Your task to perform on an android device: Show me popular games on the Play Store Image 0: 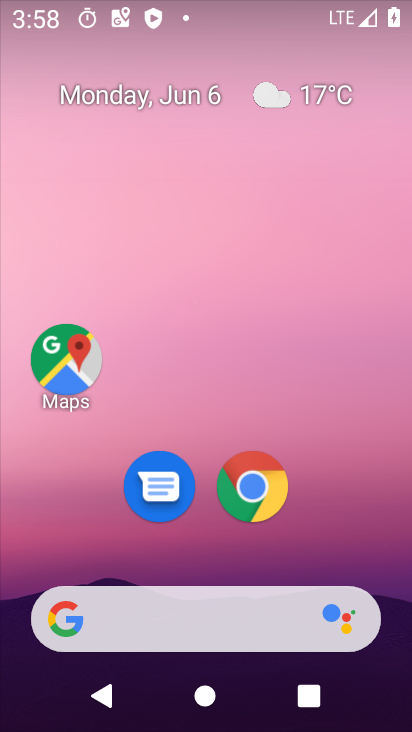
Step 0: drag from (353, 491) to (410, 97)
Your task to perform on an android device: Show me popular games on the Play Store Image 1: 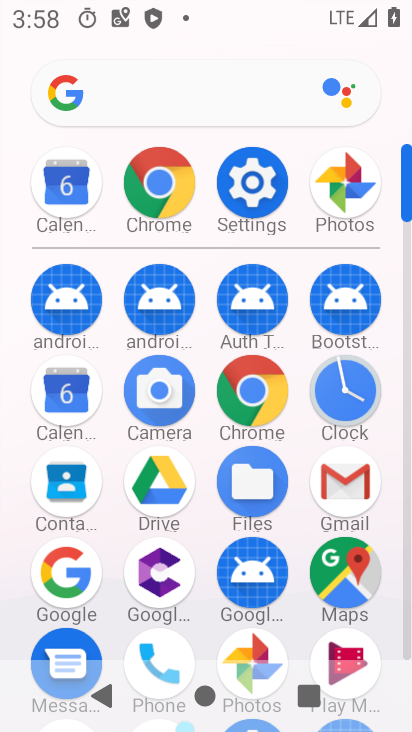
Step 1: drag from (310, 622) to (323, 155)
Your task to perform on an android device: Show me popular games on the Play Store Image 2: 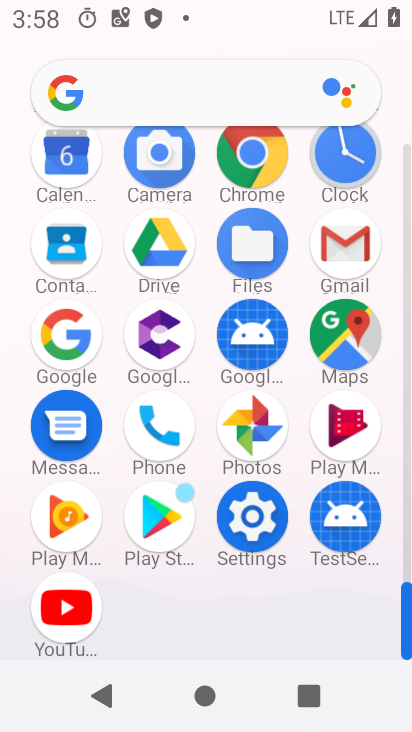
Step 2: click (148, 538)
Your task to perform on an android device: Show me popular games on the Play Store Image 3: 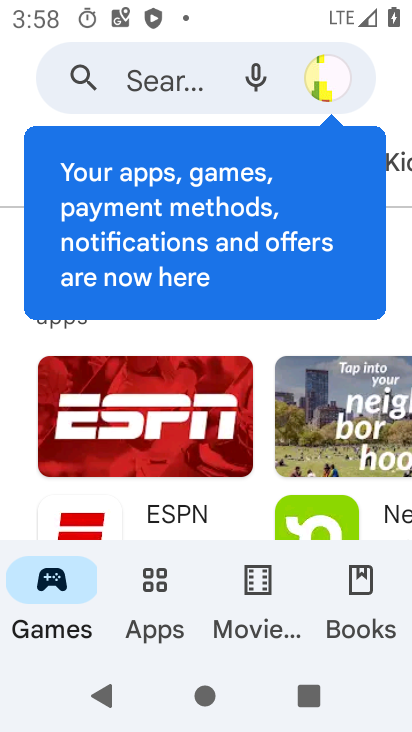
Step 3: drag from (237, 463) to (303, 57)
Your task to perform on an android device: Show me popular games on the Play Store Image 4: 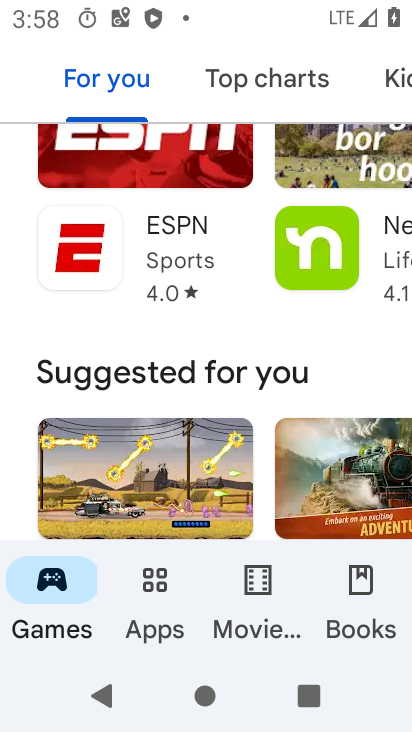
Step 4: drag from (228, 460) to (298, 85)
Your task to perform on an android device: Show me popular games on the Play Store Image 5: 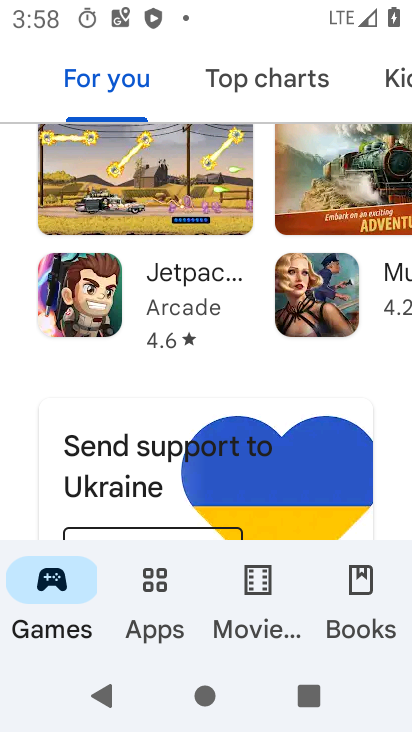
Step 5: drag from (159, 453) to (286, 123)
Your task to perform on an android device: Show me popular games on the Play Store Image 6: 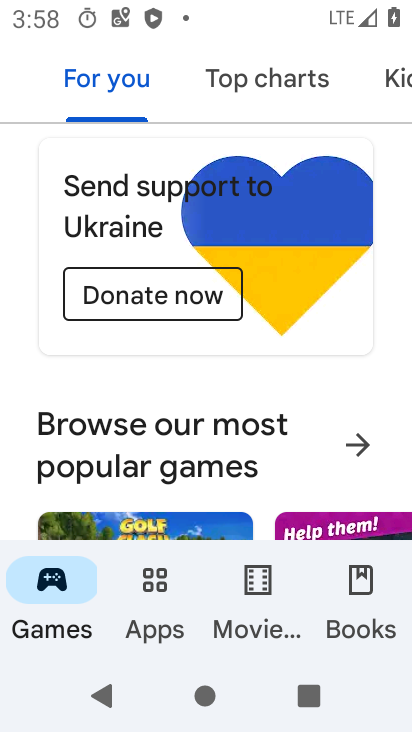
Step 6: drag from (181, 450) to (293, 110)
Your task to perform on an android device: Show me popular games on the Play Store Image 7: 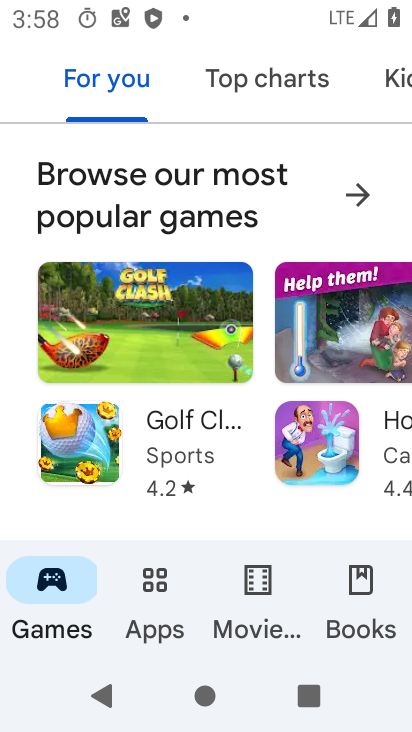
Step 7: drag from (193, 447) to (343, 131)
Your task to perform on an android device: Show me popular games on the Play Store Image 8: 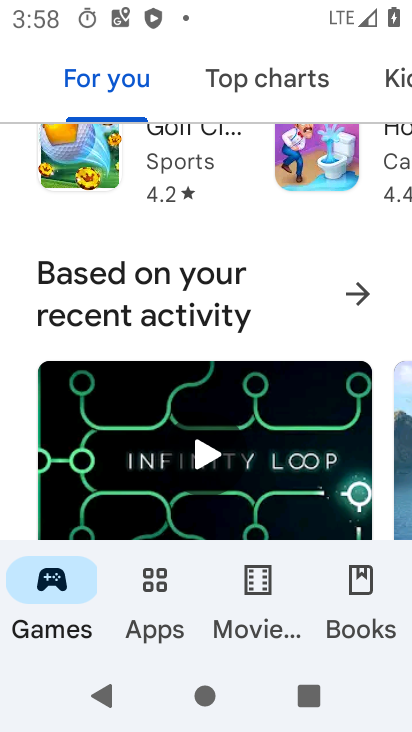
Step 8: drag from (254, 491) to (339, 94)
Your task to perform on an android device: Show me popular games on the Play Store Image 9: 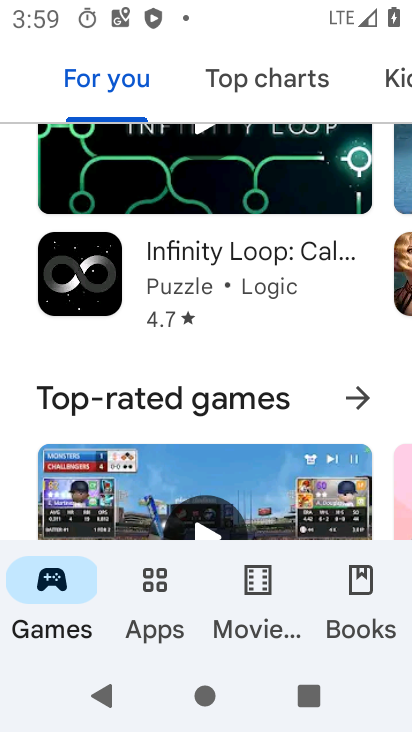
Step 9: drag from (218, 437) to (366, 111)
Your task to perform on an android device: Show me popular games on the Play Store Image 10: 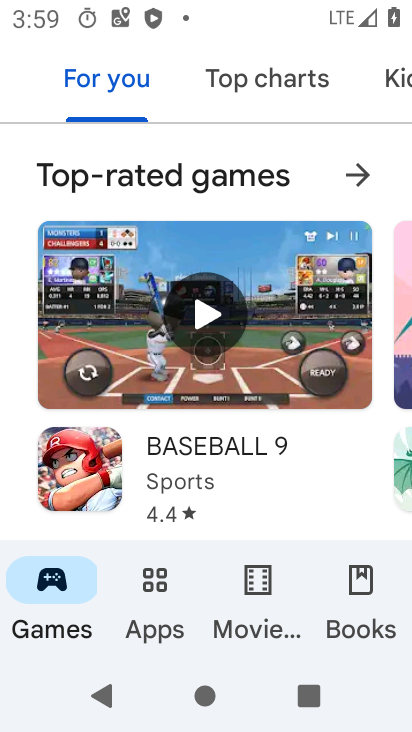
Step 10: drag from (271, 460) to (376, 105)
Your task to perform on an android device: Show me popular games on the Play Store Image 11: 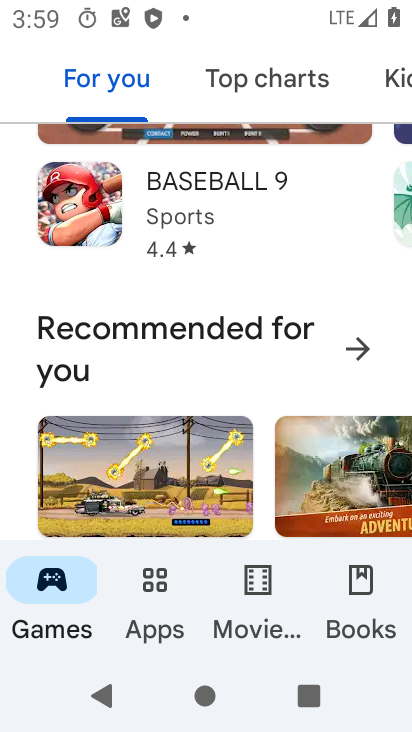
Step 11: drag from (233, 405) to (277, 106)
Your task to perform on an android device: Show me popular games on the Play Store Image 12: 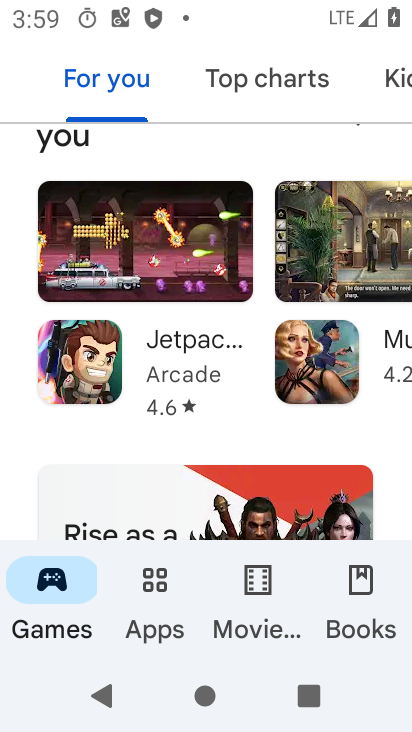
Step 12: drag from (190, 441) to (315, 139)
Your task to perform on an android device: Show me popular games on the Play Store Image 13: 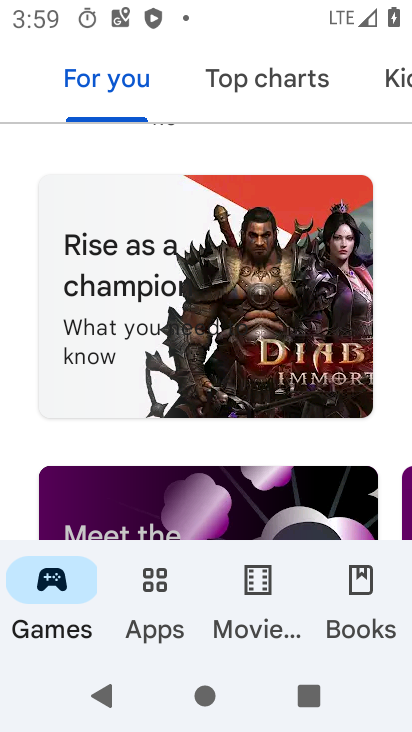
Step 13: drag from (224, 504) to (318, 180)
Your task to perform on an android device: Show me popular games on the Play Store Image 14: 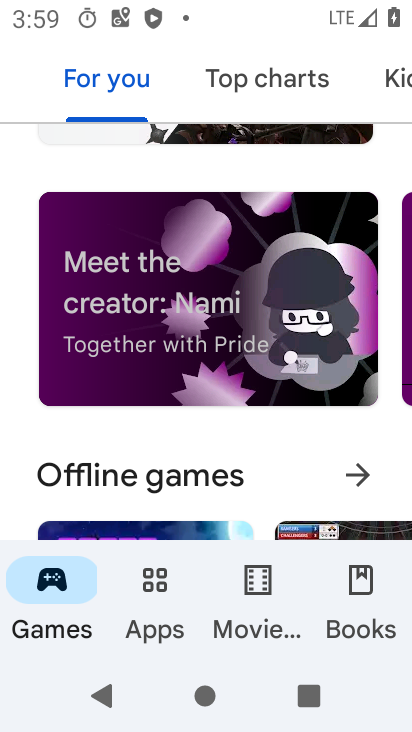
Step 14: drag from (231, 459) to (227, 119)
Your task to perform on an android device: Show me popular games on the Play Store Image 15: 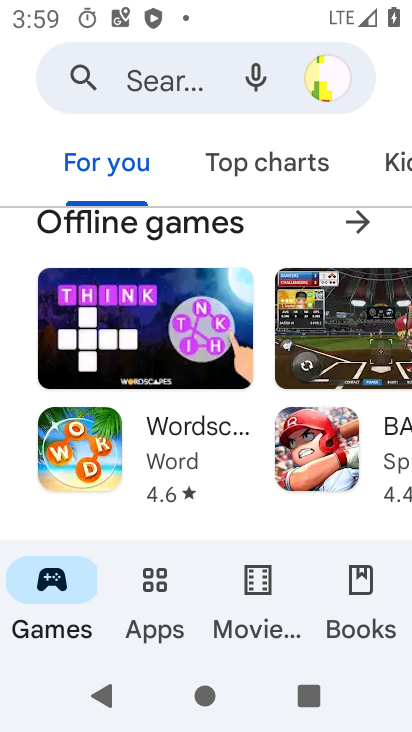
Step 15: drag from (202, 515) to (6, 151)
Your task to perform on an android device: Show me popular games on the Play Store Image 16: 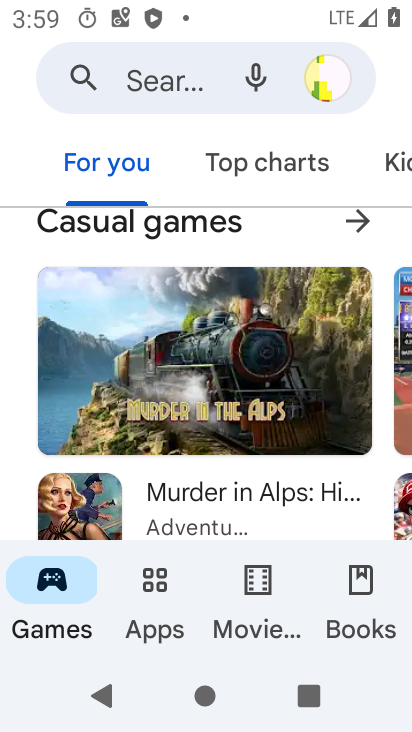
Step 16: drag from (180, 448) to (278, 27)
Your task to perform on an android device: Show me popular games on the Play Store Image 17: 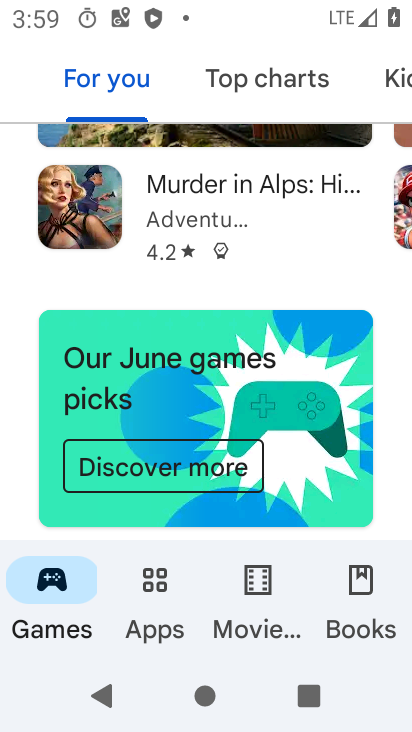
Step 17: drag from (219, 465) to (315, 19)
Your task to perform on an android device: Show me popular games on the Play Store Image 18: 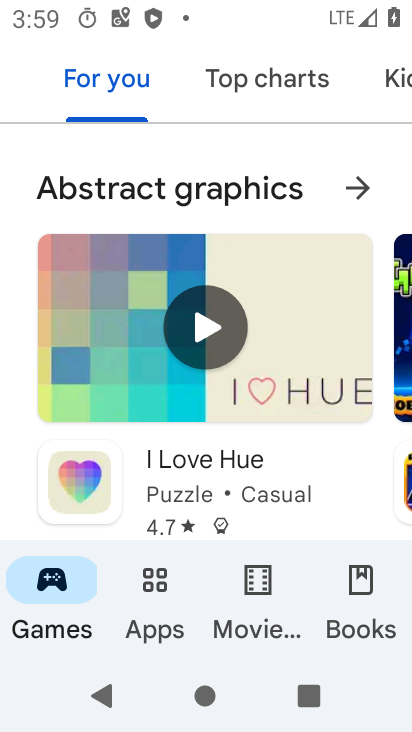
Step 18: drag from (237, 462) to (321, 79)
Your task to perform on an android device: Show me popular games on the Play Store Image 19: 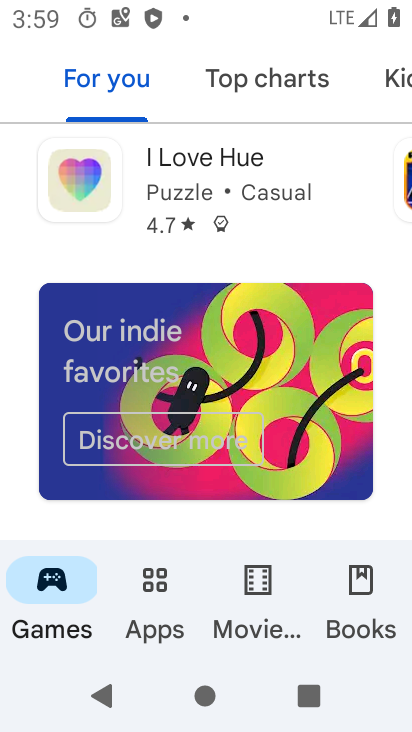
Step 19: drag from (288, 472) to (278, 145)
Your task to perform on an android device: Show me popular games on the Play Store Image 20: 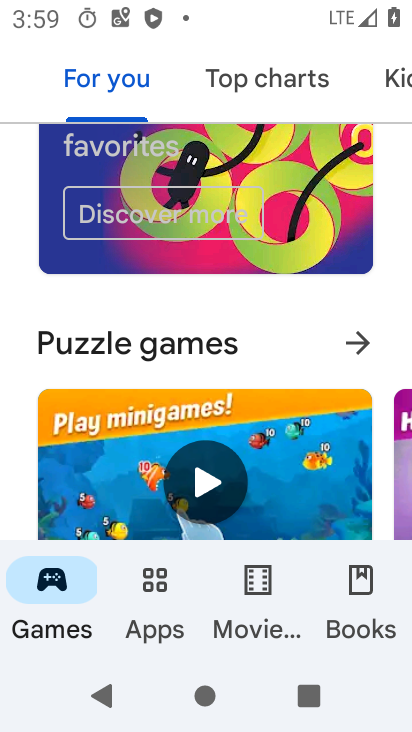
Step 20: drag from (198, 461) to (254, 138)
Your task to perform on an android device: Show me popular games on the Play Store Image 21: 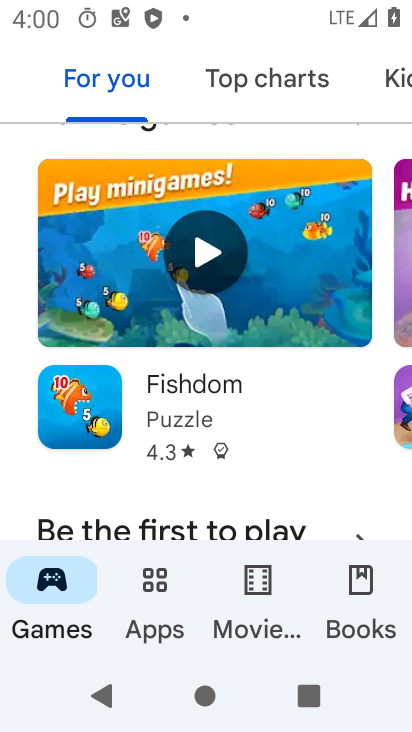
Step 21: drag from (265, 484) to (244, 107)
Your task to perform on an android device: Show me popular games on the Play Store Image 22: 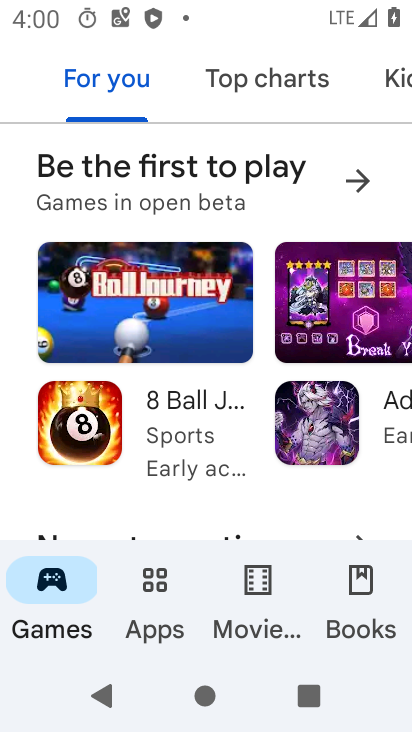
Step 22: drag from (230, 429) to (223, 127)
Your task to perform on an android device: Show me popular games on the Play Store Image 23: 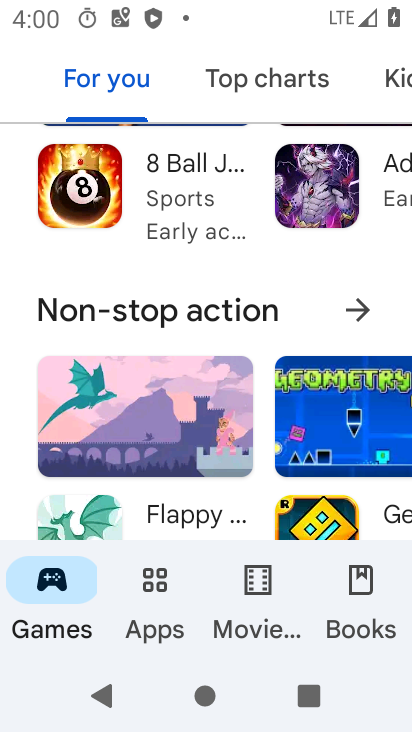
Step 23: drag from (195, 425) to (232, 188)
Your task to perform on an android device: Show me popular games on the Play Store Image 24: 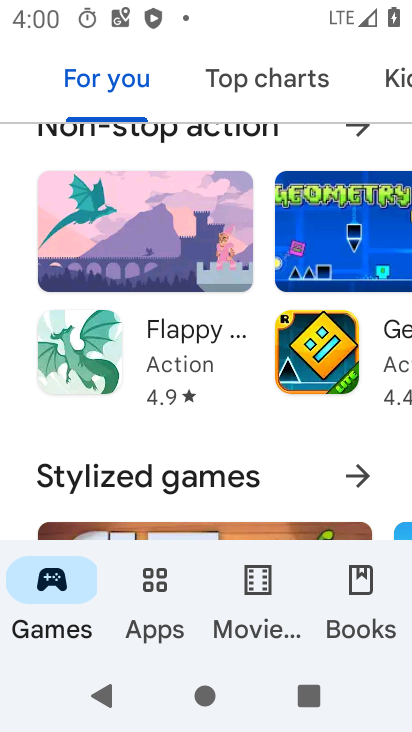
Step 24: drag from (197, 484) to (236, 151)
Your task to perform on an android device: Show me popular games on the Play Store Image 25: 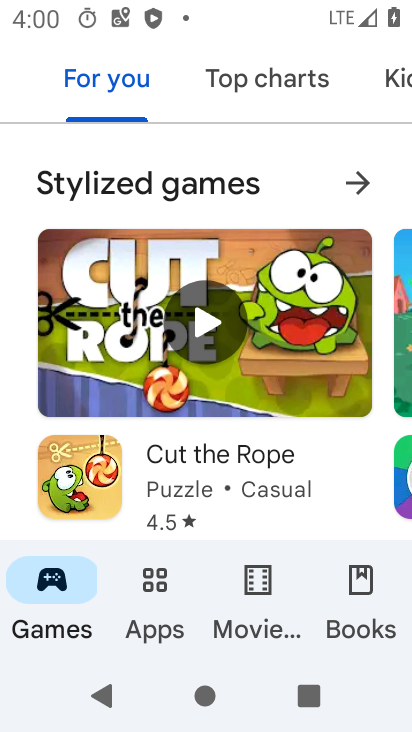
Step 25: drag from (226, 419) to (238, 144)
Your task to perform on an android device: Show me popular games on the Play Store Image 26: 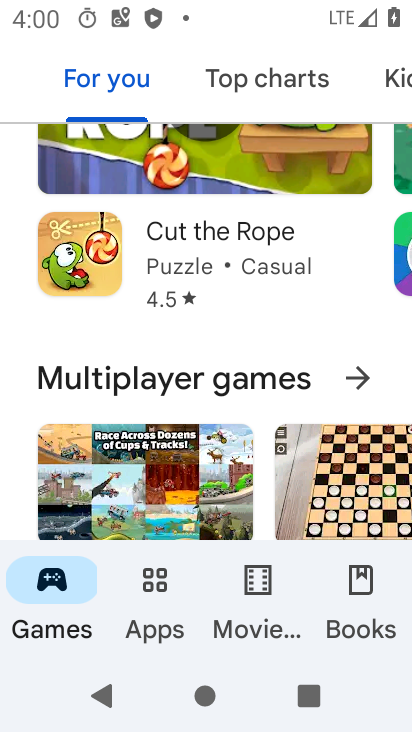
Step 26: drag from (272, 419) to (306, 83)
Your task to perform on an android device: Show me popular games on the Play Store Image 27: 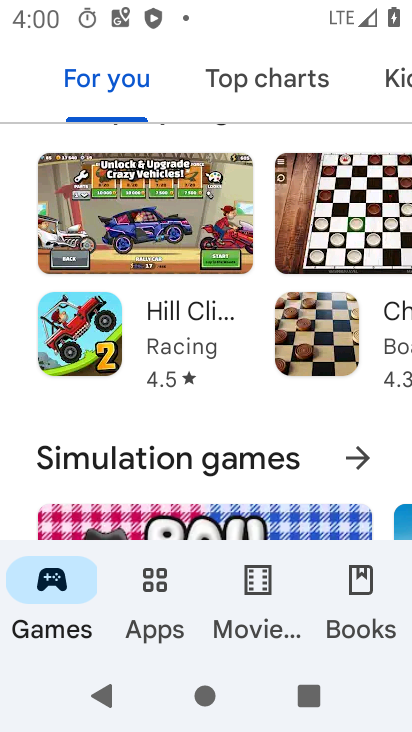
Step 27: drag from (388, 393) to (387, 70)
Your task to perform on an android device: Show me popular games on the Play Store Image 28: 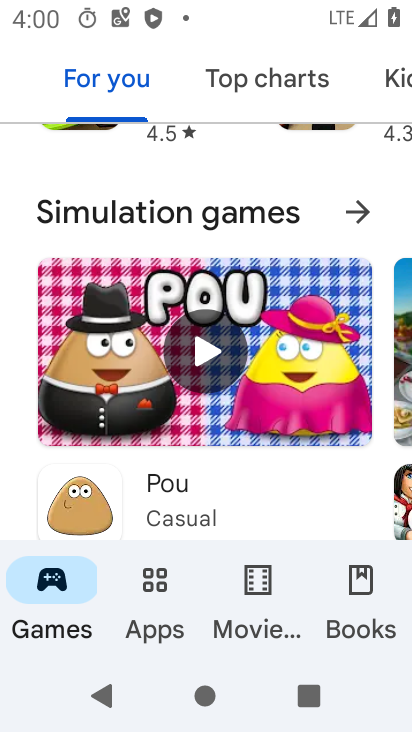
Step 28: drag from (267, 522) to (282, 174)
Your task to perform on an android device: Show me popular games on the Play Store Image 29: 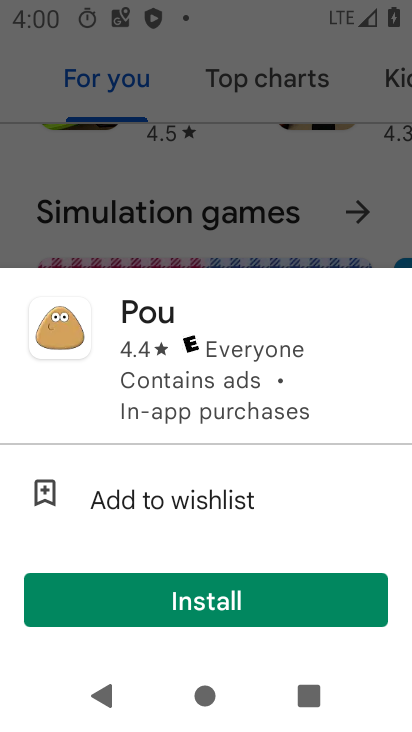
Step 29: click (271, 214)
Your task to perform on an android device: Show me popular games on the Play Store Image 30: 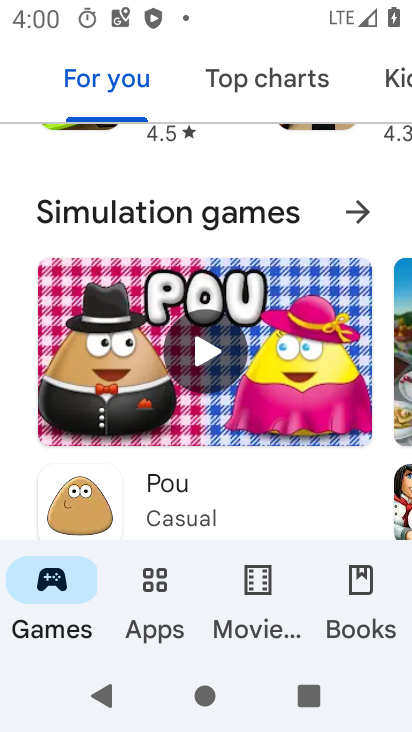
Step 30: task complete